Your task to perform on an android device: set default search engine in the chrome app Image 0: 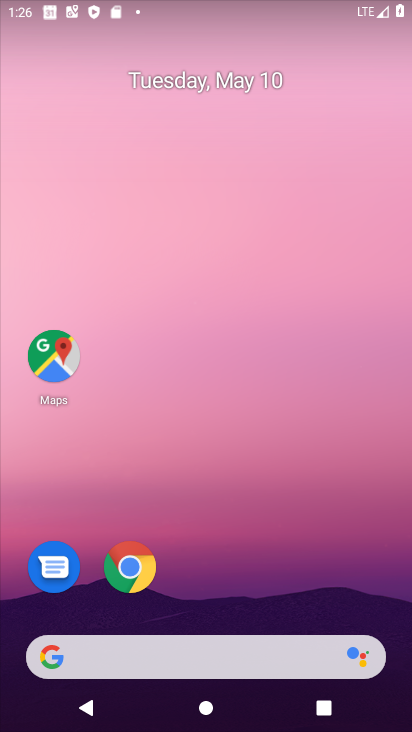
Step 0: drag from (400, 614) to (263, 128)
Your task to perform on an android device: set default search engine in the chrome app Image 1: 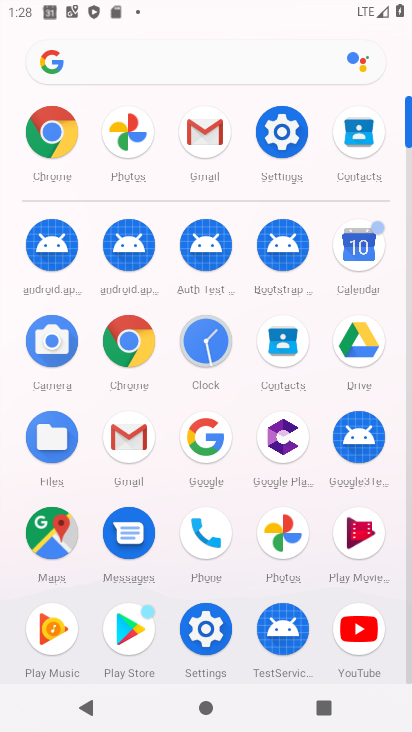
Step 1: click (129, 362)
Your task to perform on an android device: set default search engine in the chrome app Image 2: 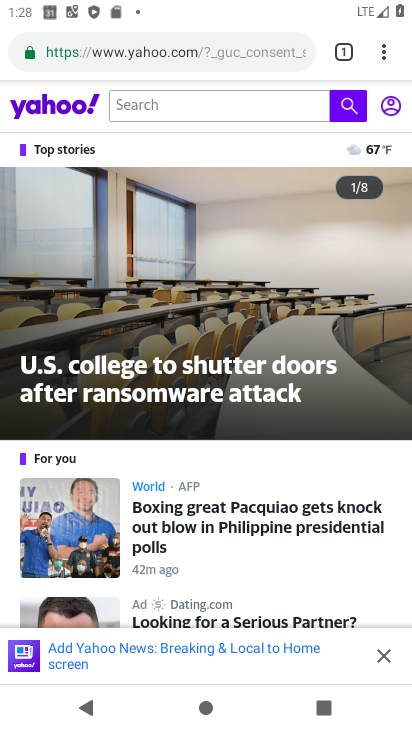
Step 2: press back button
Your task to perform on an android device: set default search engine in the chrome app Image 3: 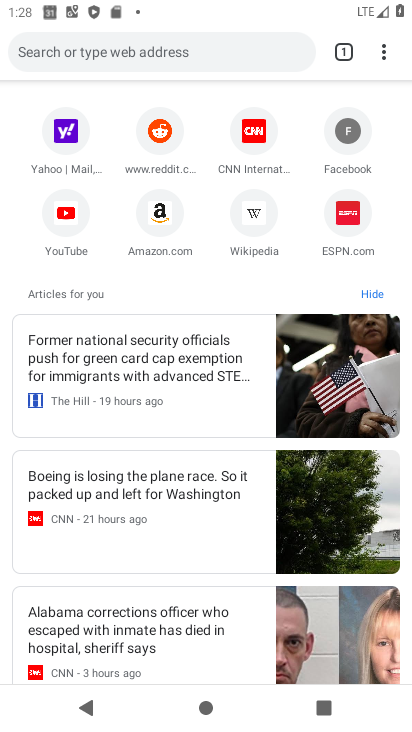
Step 3: click (387, 47)
Your task to perform on an android device: set default search engine in the chrome app Image 4: 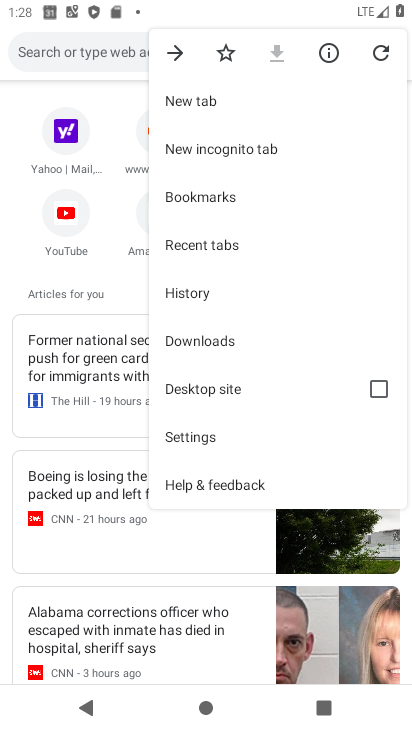
Step 4: click (220, 428)
Your task to perform on an android device: set default search engine in the chrome app Image 5: 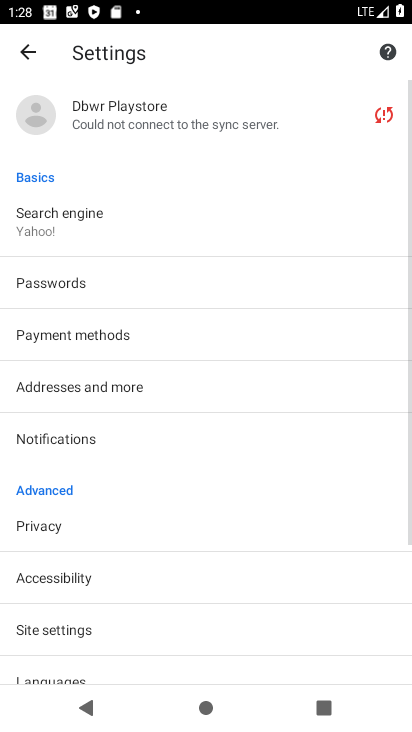
Step 5: click (143, 228)
Your task to perform on an android device: set default search engine in the chrome app Image 6: 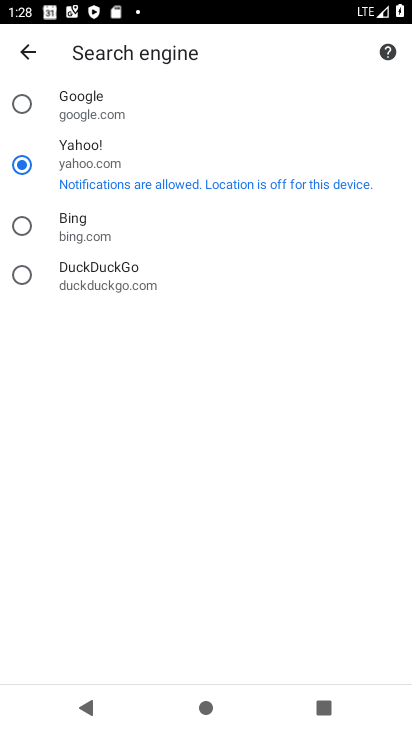
Step 6: click (78, 225)
Your task to perform on an android device: set default search engine in the chrome app Image 7: 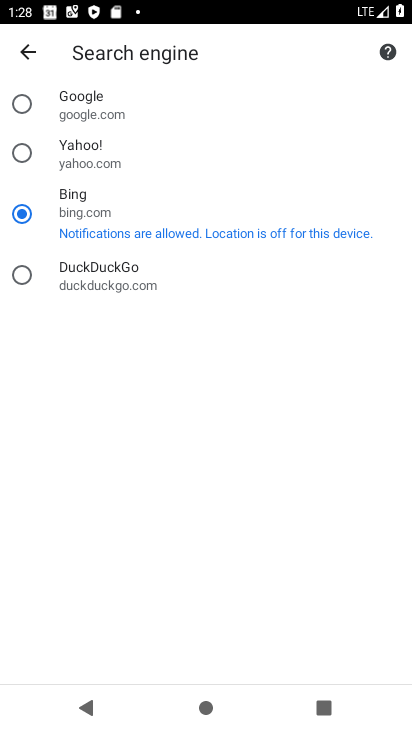
Step 7: task complete